Your task to perform on an android device: Open calendar and show me the second week of next month Image 0: 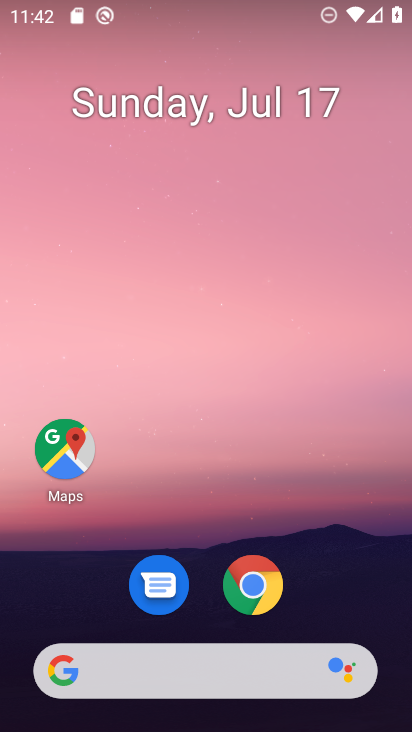
Step 0: press home button
Your task to perform on an android device: Open calendar and show me the second week of next month Image 1: 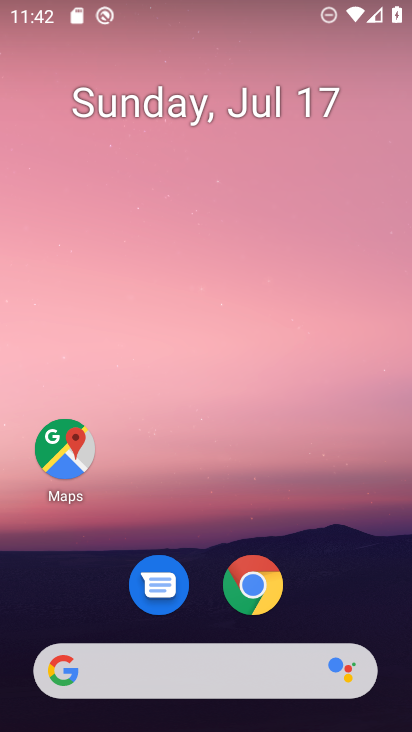
Step 1: drag from (243, 670) to (357, 43)
Your task to perform on an android device: Open calendar and show me the second week of next month Image 2: 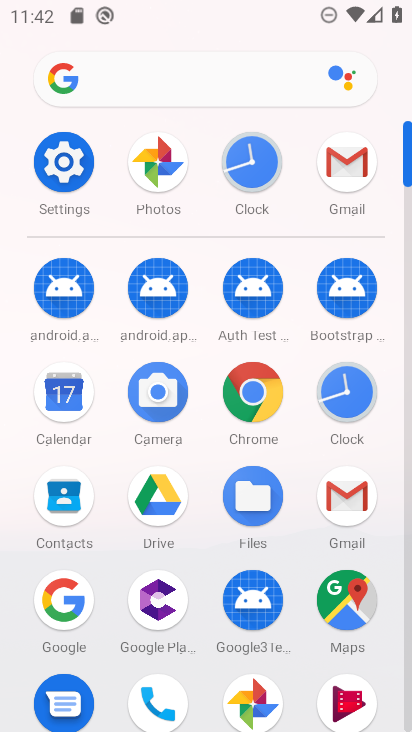
Step 2: click (74, 409)
Your task to perform on an android device: Open calendar and show me the second week of next month Image 3: 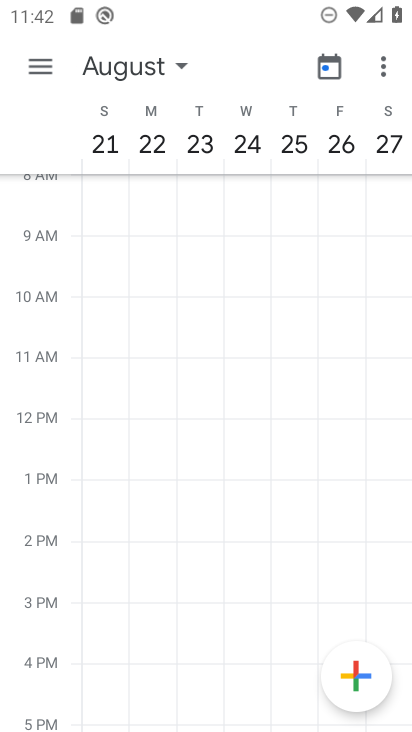
Step 3: click (130, 67)
Your task to perform on an android device: Open calendar and show me the second week of next month Image 4: 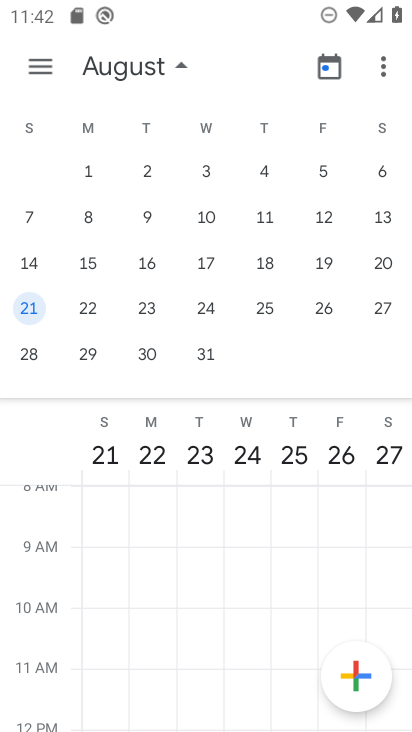
Step 4: click (26, 214)
Your task to perform on an android device: Open calendar and show me the second week of next month Image 5: 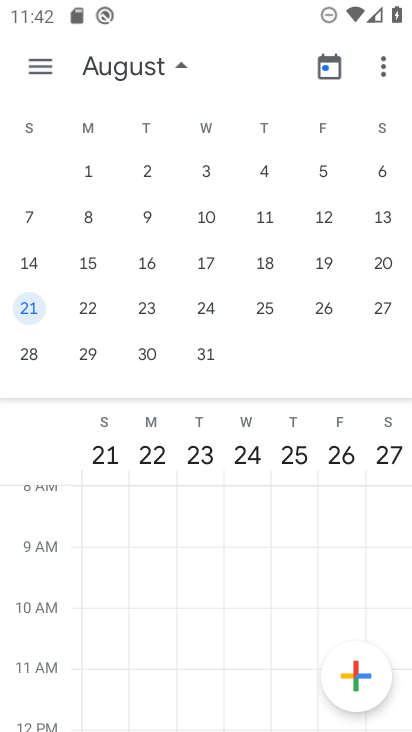
Step 5: click (30, 221)
Your task to perform on an android device: Open calendar and show me the second week of next month Image 6: 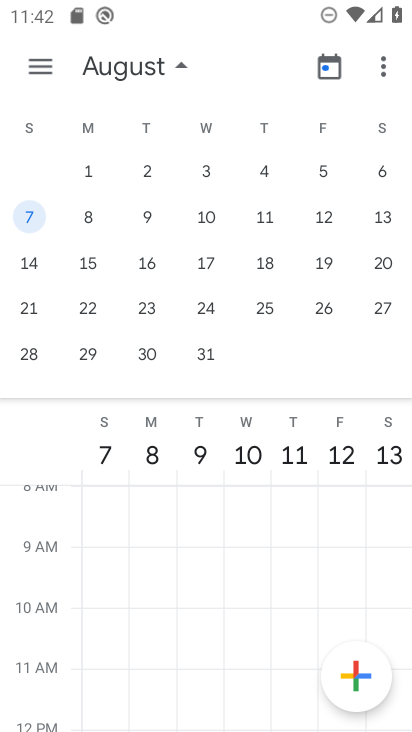
Step 6: click (31, 114)
Your task to perform on an android device: Open calendar and show me the second week of next month Image 7: 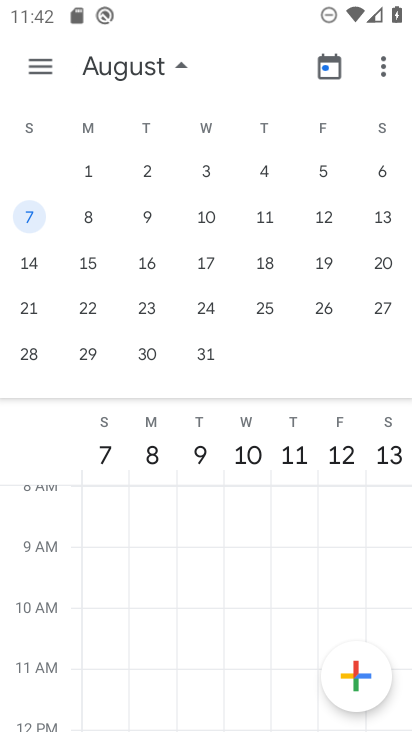
Step 7: click (46, 66)
Your task to perform on an android device: Open calendar and show me the second week of next month Image 8: 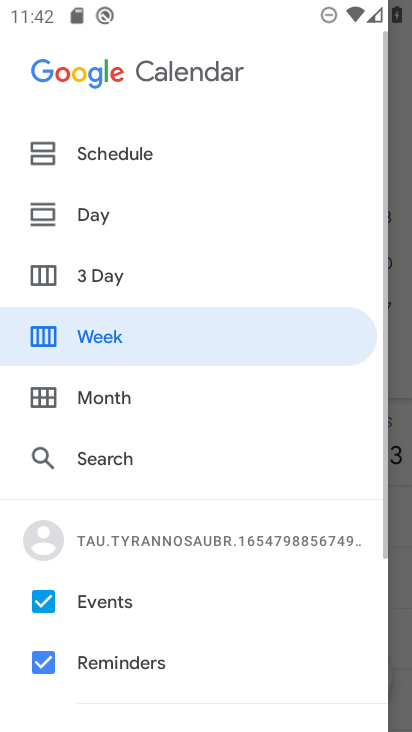
Step 8: click (96, 333)
Your task to perform on an android device: Open calendar and show me the second week of next month Image 9: 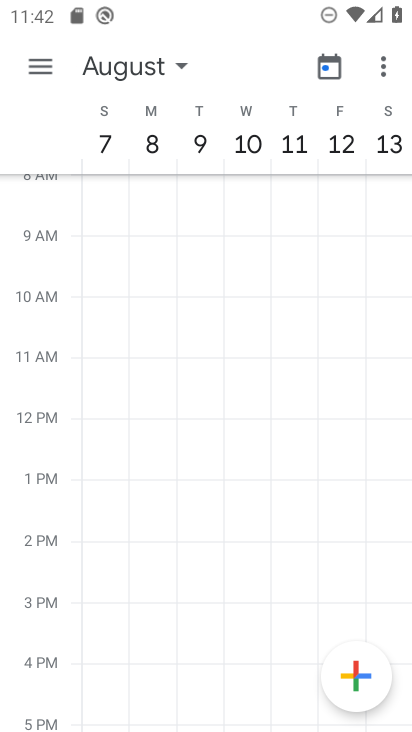
Step 9: task complete